Your task to perform on an android device: turn off airplane mode Image 0: 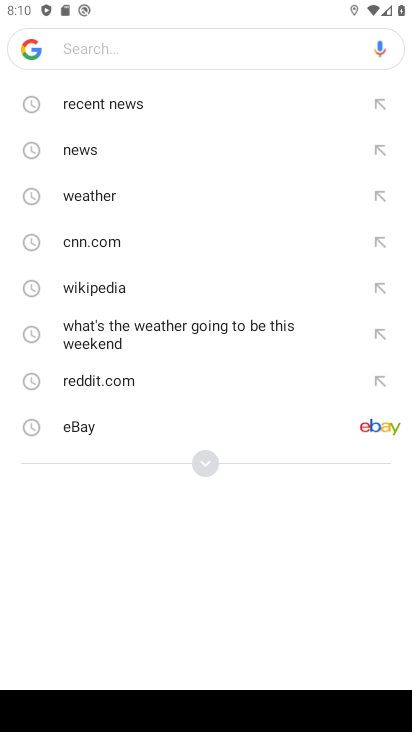
Step 0: press home button
Your task to perform on an android device: turn off airplane mode Image 1: 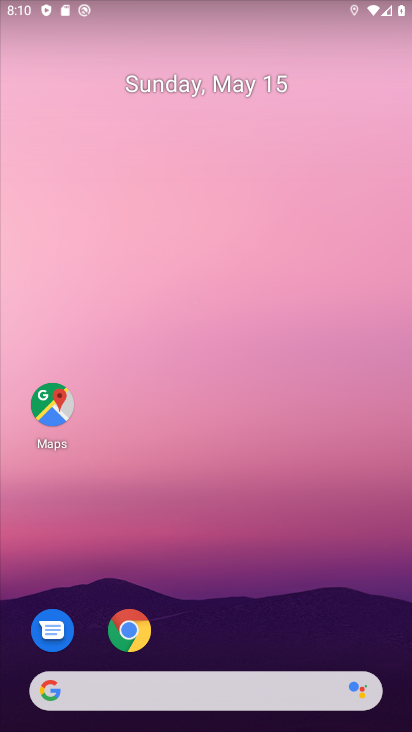
Step 1: drag from (221, 608) to (267, 48)
Your task to perform on an android device: turn off airplane mode Image 2: 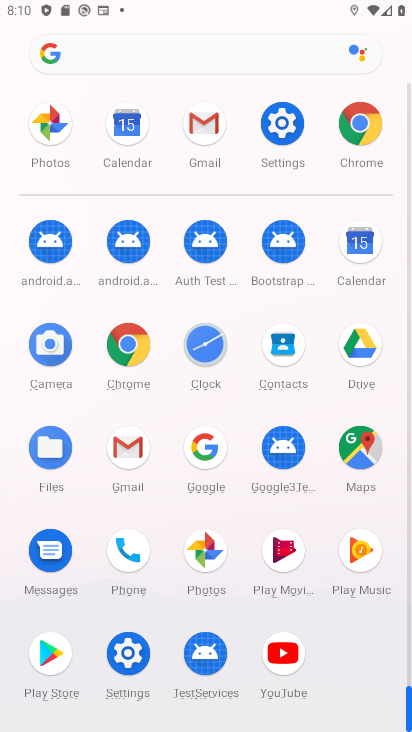
Step 2: click (290, 130)
Your task to perform on an android device: turn off airplane mode Image 3: 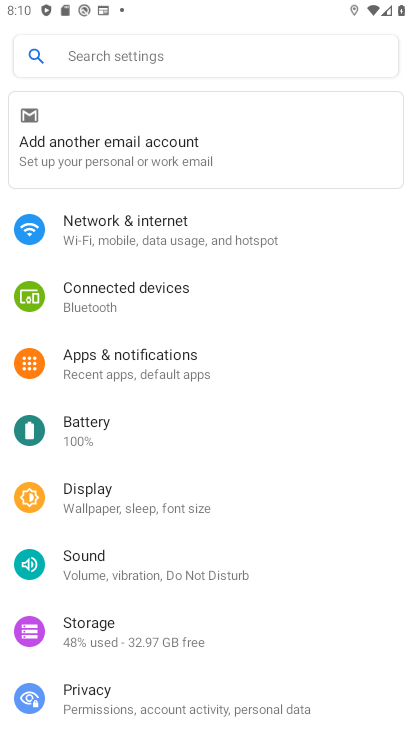
Step 3: click (195, 231)
Your task to perform on an android device: turn off airplane mode Image 4: 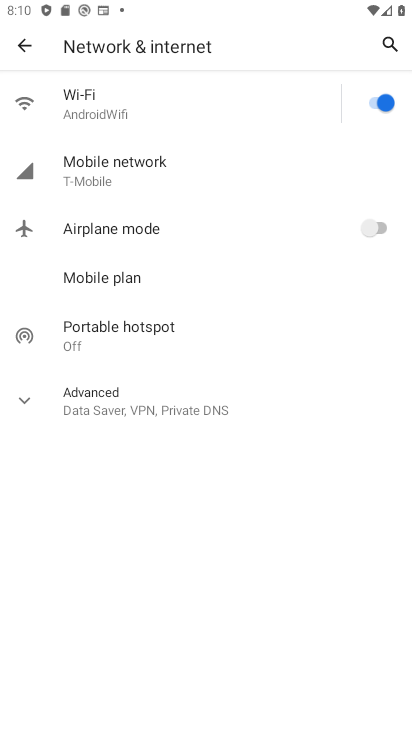
Step 4: task complete